Your task to perform on an android device: open sync settings in chrome Image 0: 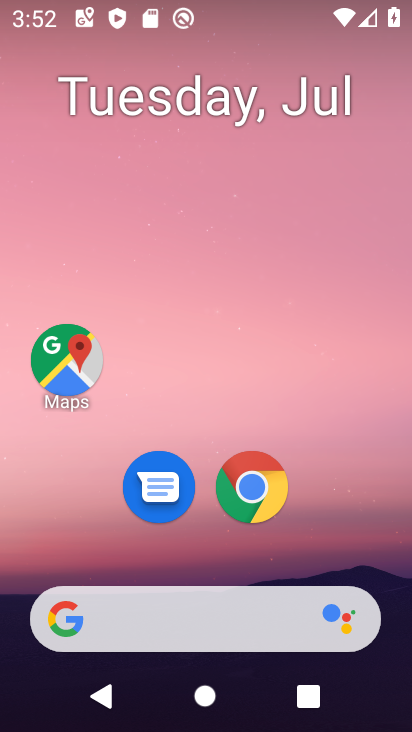
Step 0: click (236, 476)
Your task to perform on an android device: open sync settings in chrome Image 1: 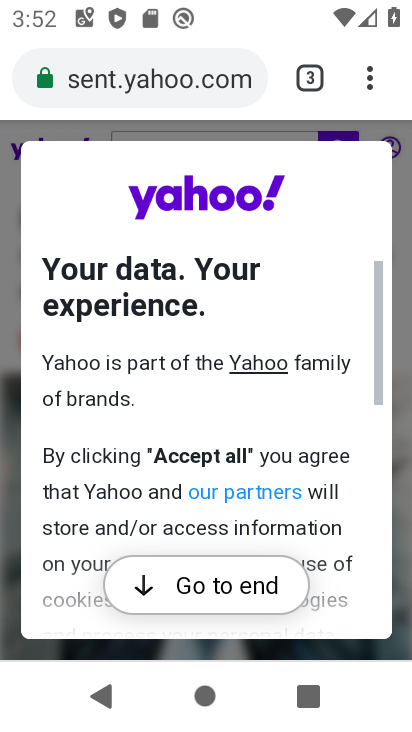
Step 1: click (378, 80)
Your task to perform on an android device: open sync settings in chrome Image 2: 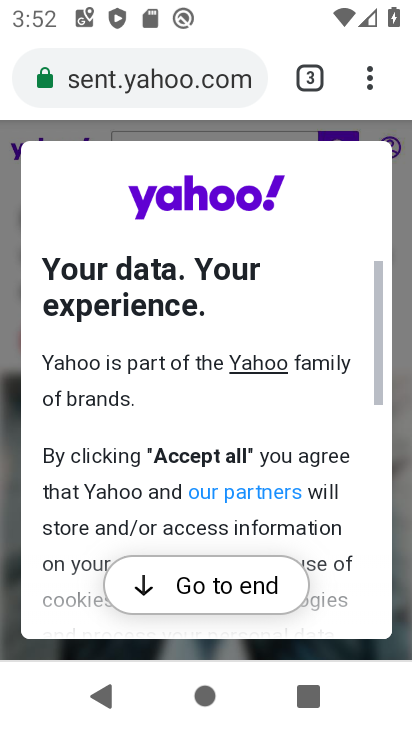
Step 2: drag from (368, 69) to (111, 529)
Your task to perform on an android device: open sync settings in chrome Image 3: 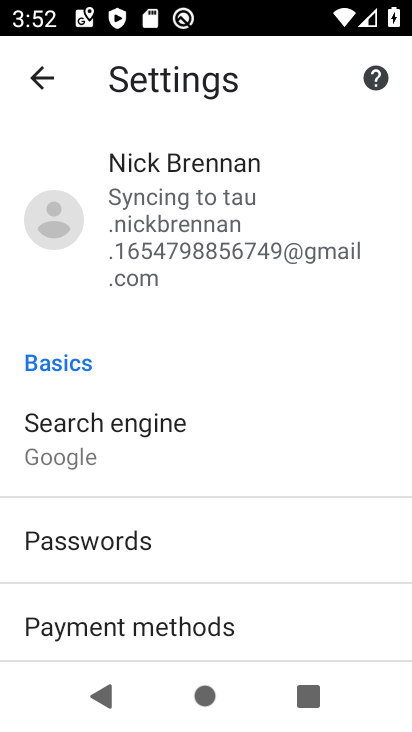
Step 3: click (201, 222)
Your task to perform on an android device: open sync settings in chrome Image 4: 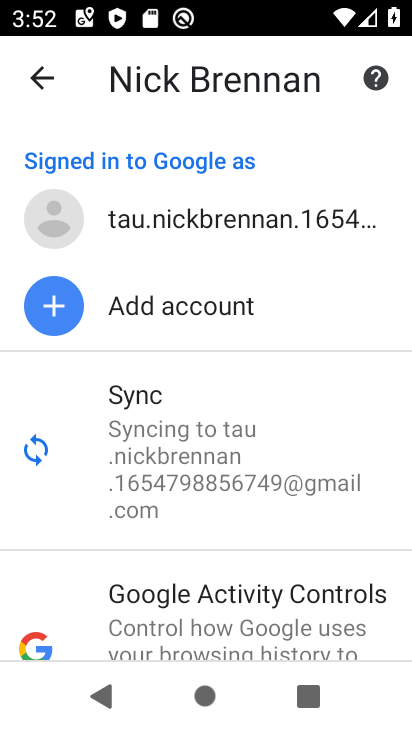
Step 4: task complete